Your task to perform on an android device: Open maps Image 0: 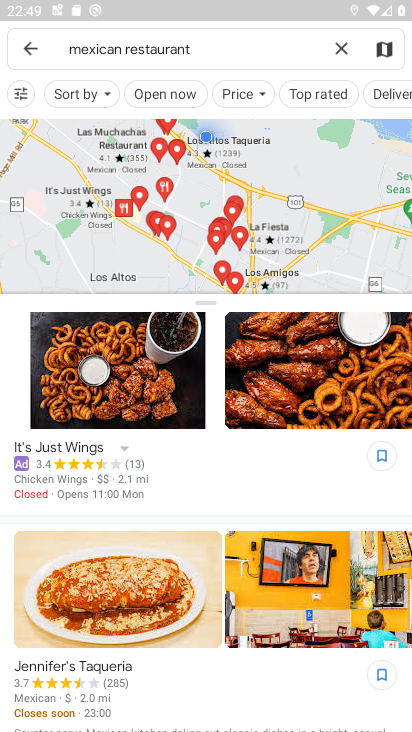
Step 0: click (32, 47)
Your task to perform on an android device: Open maps Image 1: 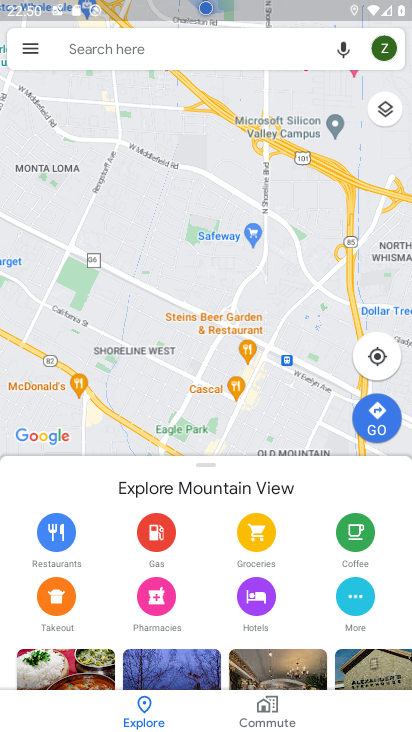
Step 1: task complete